Your task to perform on an android device: What's on my calendar today? Image 0: 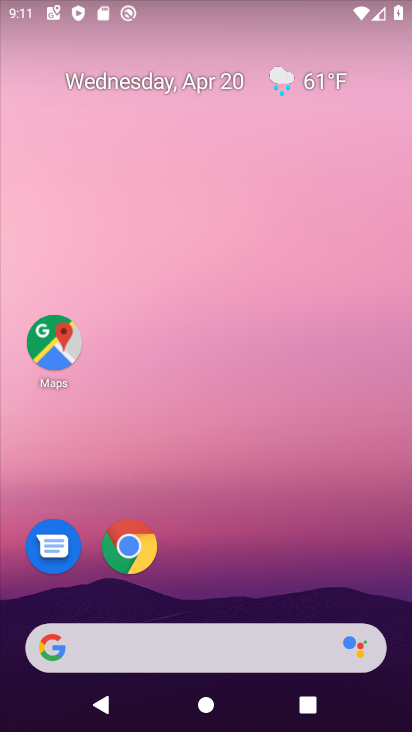
Step 0: drag from (252, 537) to (252, 57)
Your task to perform on an android device: What's on my calendar today? Image 1: 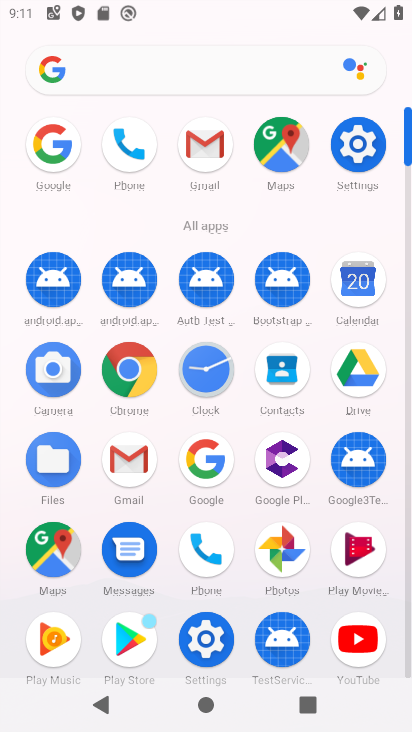
Step 1: click (364, 281)
Your task to perform on an android device: What's on my calendar today? Image 2: 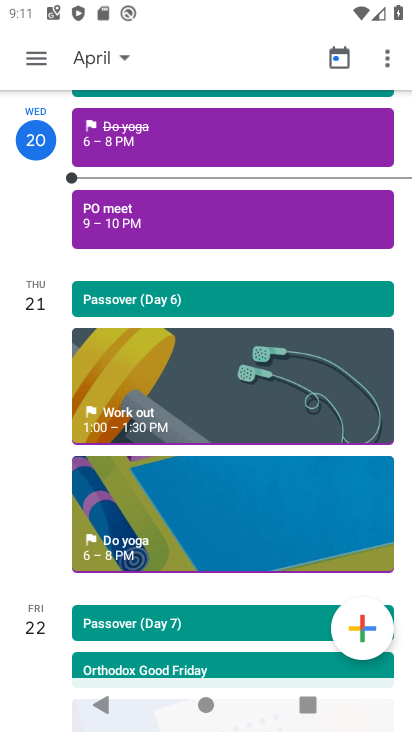
Step 2: click (93, 59)
Your task to perform on an android device: What's on my calendar today? Image 3: 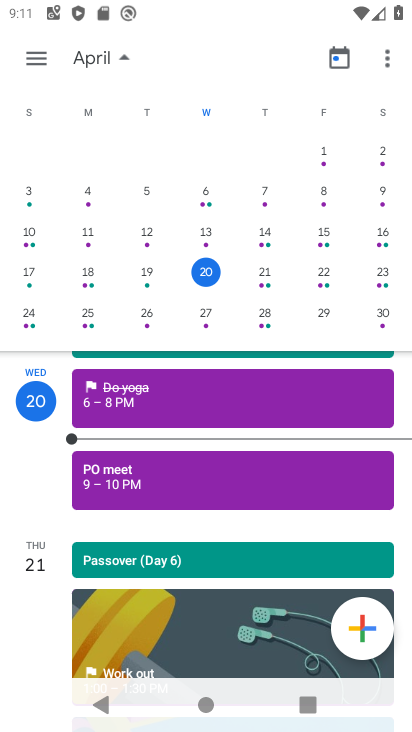
Step 3: click (210, 272)
Your task to perform on an android device: What's on my calendar today? Image 4: 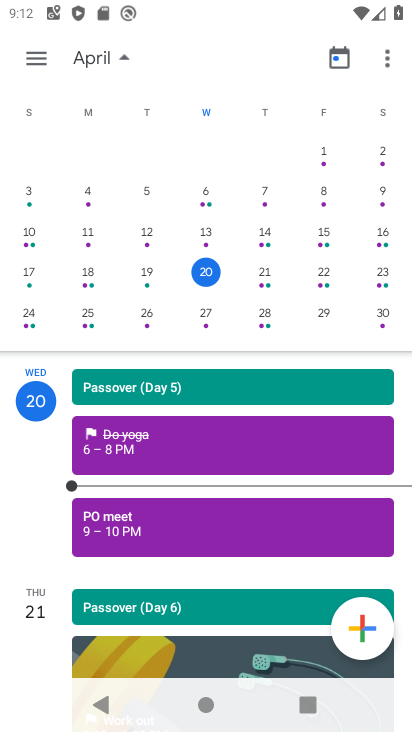
Step 4: task complete